Your task to perform on an android device: allow cookies in the chrome app Image 0: 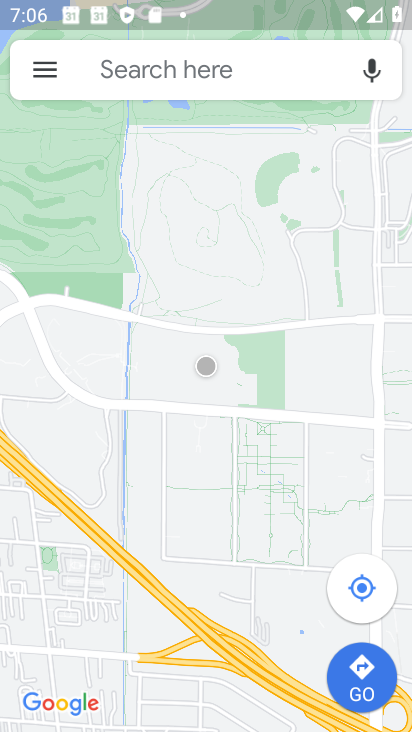
Step 0: press home button
Your task to perform on an android device: allow cookies in the chrome app Image 1: 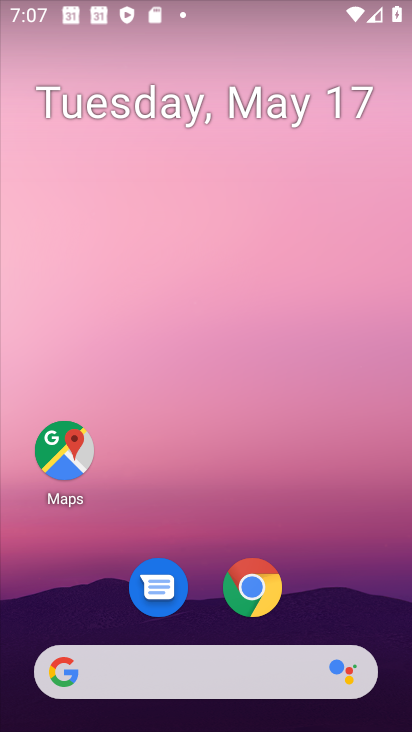
Step 1: drag from (197, 702) to (301, 273)
Your task to perform on an android device: allow cookies in the chrome app Image 2: 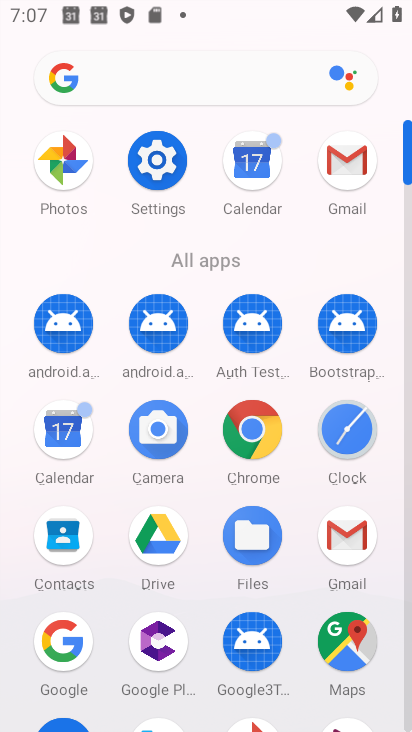
Step 2: click (269, 426)
Your task to perform on an android device: allow cookies in the chrome app Image 3: 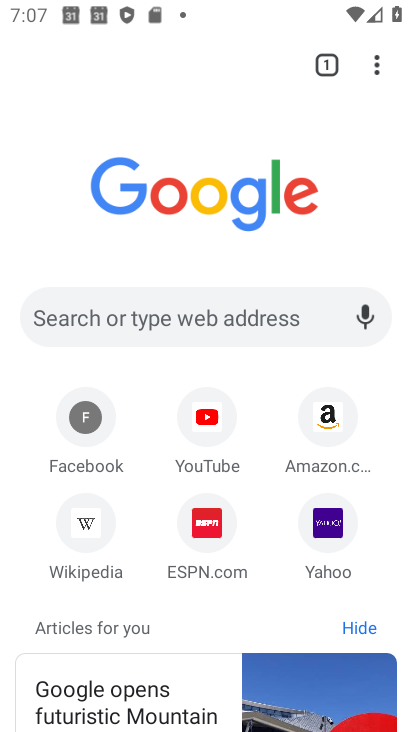
Step 3: click (365, 78)
Your task to perform on an android device: allow cookies in the chrome app Image 4: 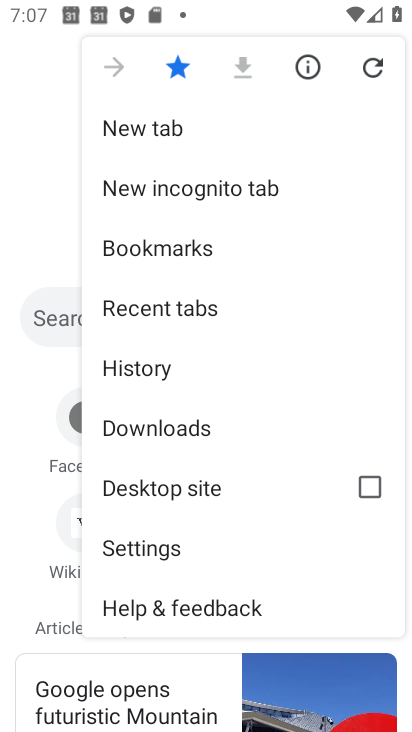
Step 4: click (191, 531)
Your task to perform on an android device: allow cookies in the chrome app Image 5: 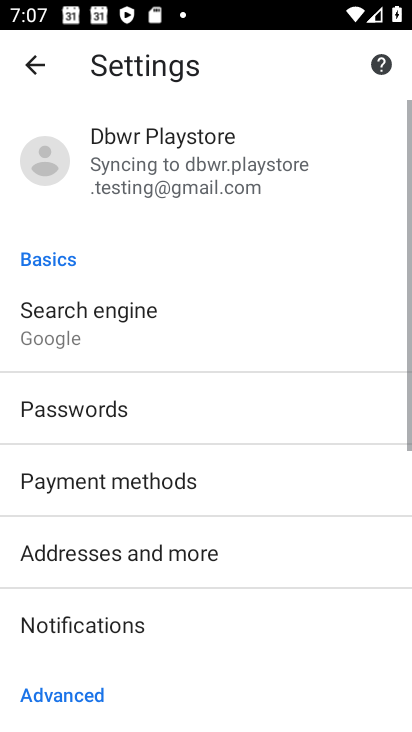
Step 5: drag from (126, 558) to (254, 238)
Your task to perform on an android device: allow cookies in the chrome app Image 6: 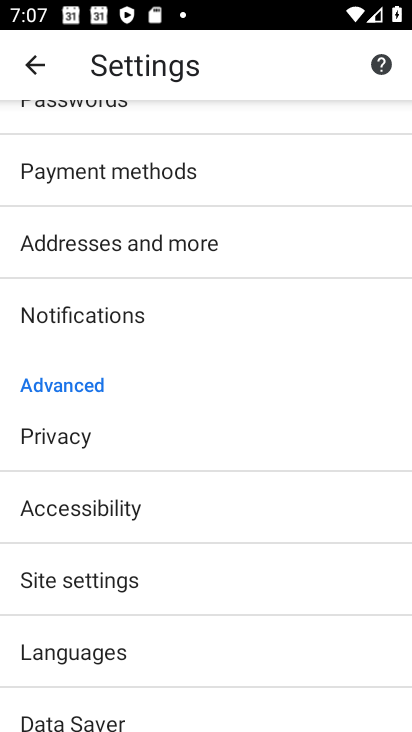
Step 6: click (152, 573)
Your task to perform on an android device: allow cookies in the chrome app Image 7: 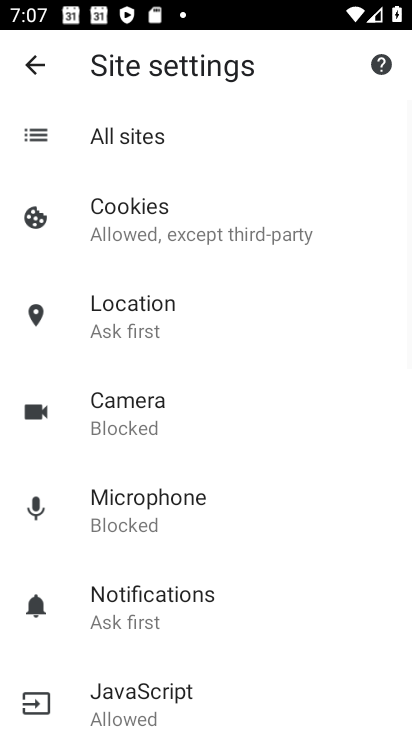
Step 7: click (164, 214)
Your task to perform on an android device: allow cookies in the chrome app Image 8: 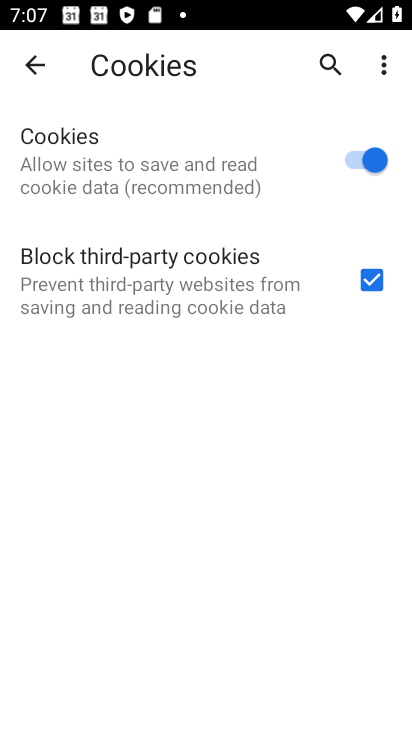
Step 8: click (318, 174)
Your task to perform on an android device: allow cookies in the chrome app Image 9: 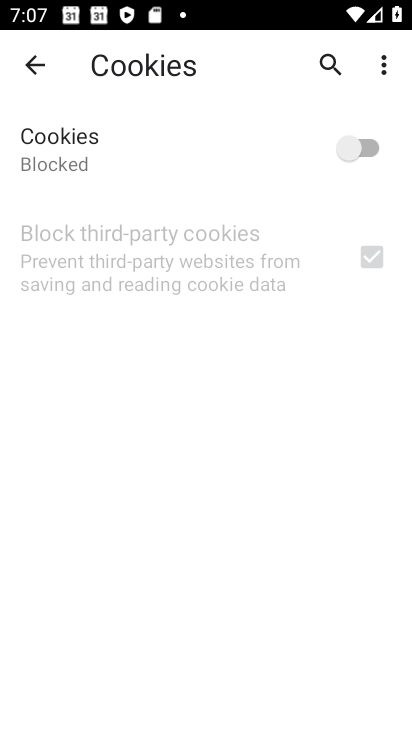
Step 9: click (325, 166)
Your task to perform on an android device: allow cookies in the chrome app Image 10: 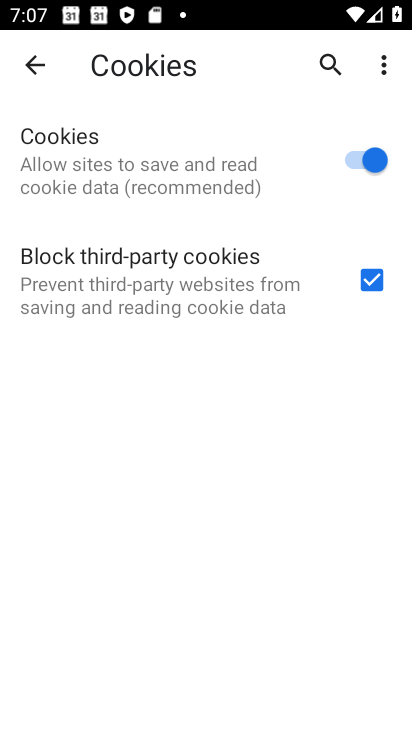
Step 10: task complete